Your task to perform on an android device: turn on javascript in the chrome app Image 0: 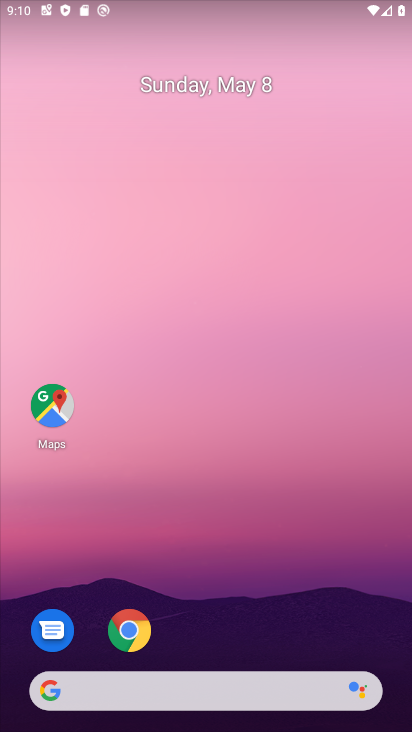
Step 0: drag from (196, 684) to (351, 163)
Your task to perform on an android device: turn on javascript in the chrome app Image 1: 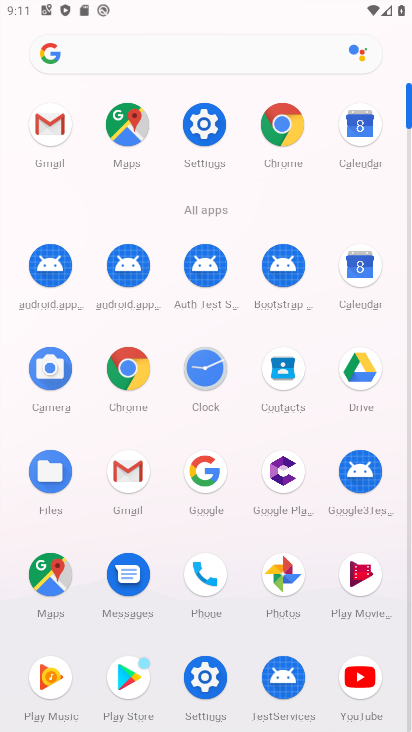
Step 1: click (282, 134)
Your task to perform on an android device: turn on javascript in the chrome app Image 2: 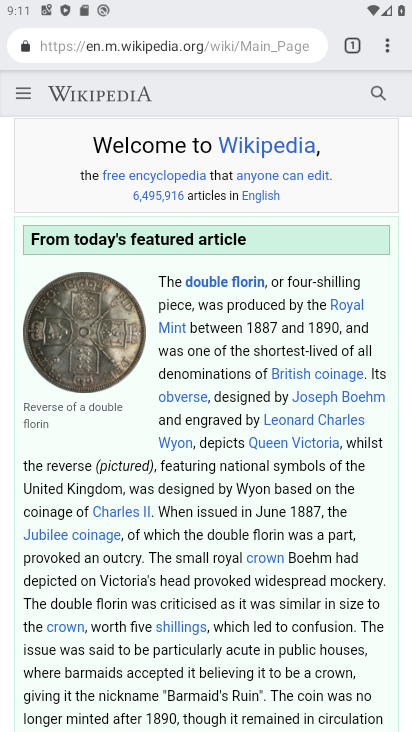
Step 2: drag from (387, 48) to (246, 545)
Your task to perform on an android device: turn on javascript in the chrome app Image 3: 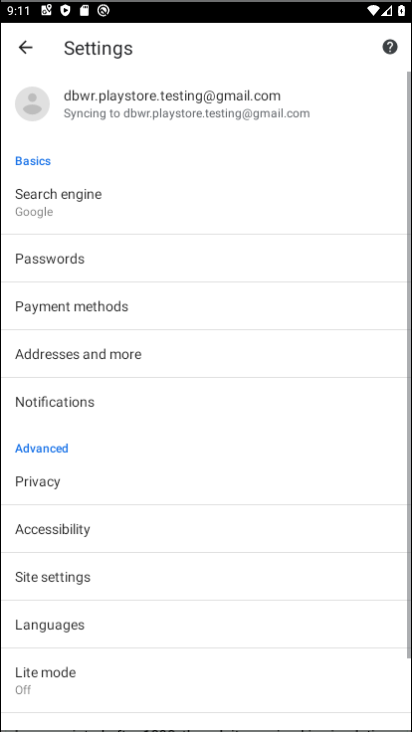
Step 3: click (246, 545)
Your task to perform on an android device: turn on javascript in the chrome app Image 4: 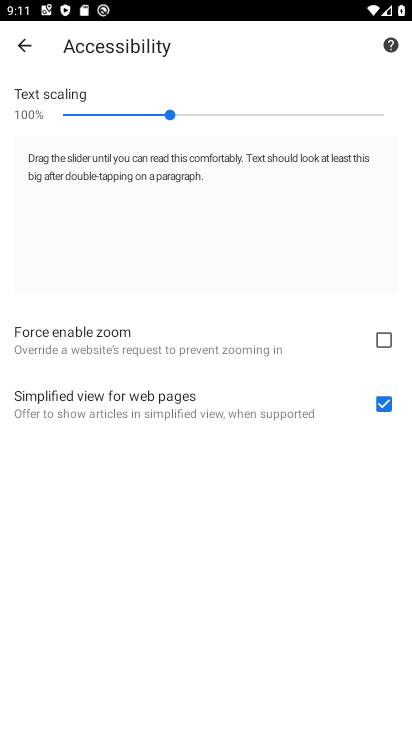
Step 4: click (25, 43)
Your task to perform on an android device: turn on javascript in the chrome app Image 5: 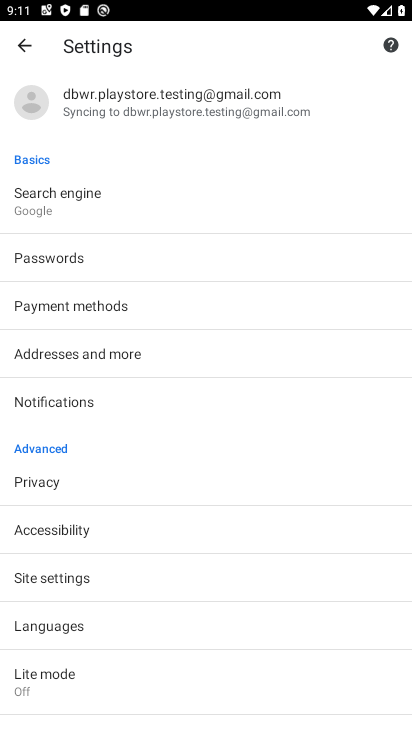
Step 5: click (77, 585)
Your task to perform on an android device: turn on javascript in the chrome app Image 6: 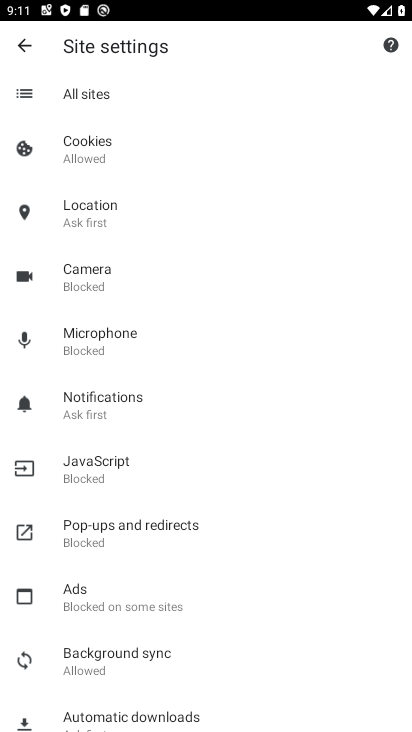
Step 6: click (106, 477)
Your task to perform on an android device: turn on javascript in the chrome app Image 7: 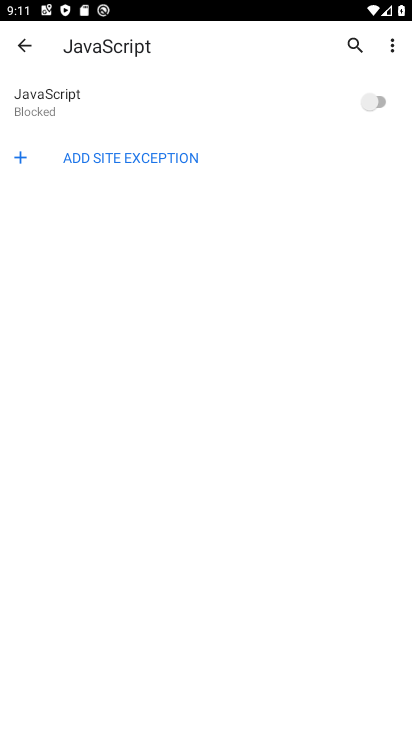
Step 7: click (381, 102)
Your task to perform on an android device: turn on javascript in the chrome app Image 8: 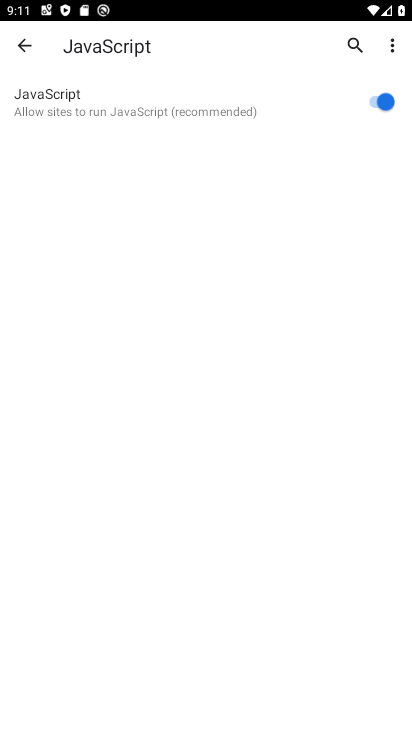
Step 8: task complete